Your task to perform on an android device: open chrome and create a bookmark for the current page Image 0: 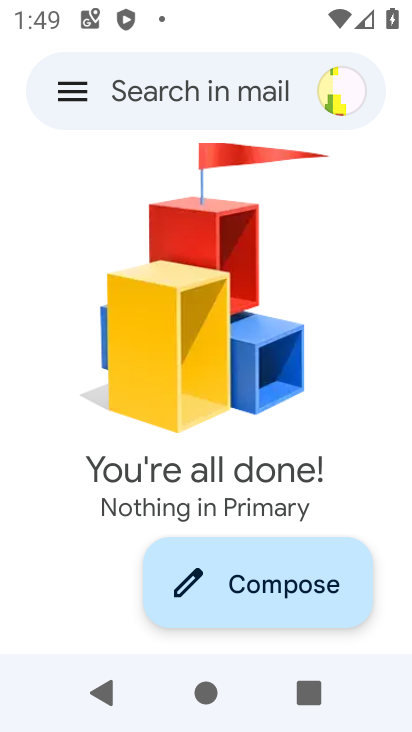
Step 0: press home button
Your task to perform on an android device: open chrome and create a bookmark for the current page Image 1: 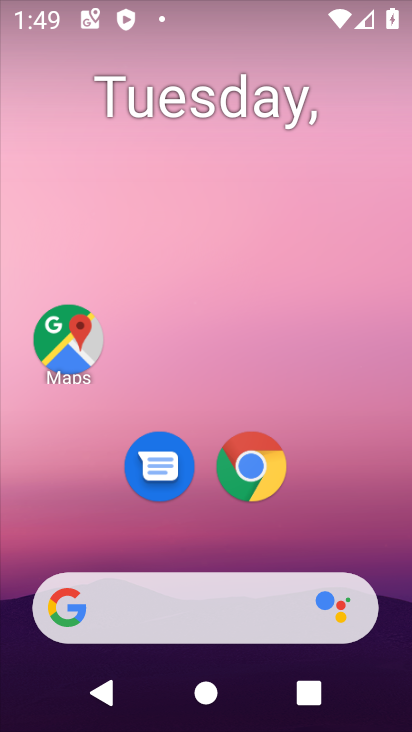
Step 1: click (241, 459)
Your task to perform on an android device: open chrome and create a bookmark for the current page Image 2: 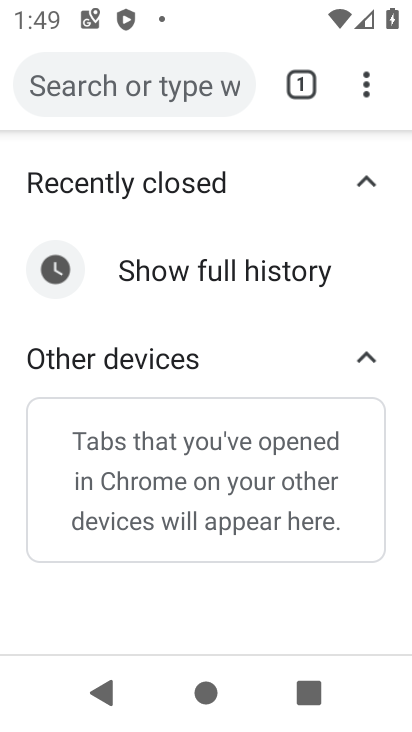
Step 2: click (143, 70)
Your task to perform on an android device: open chrome and create a bookmark for the current page Image 3: 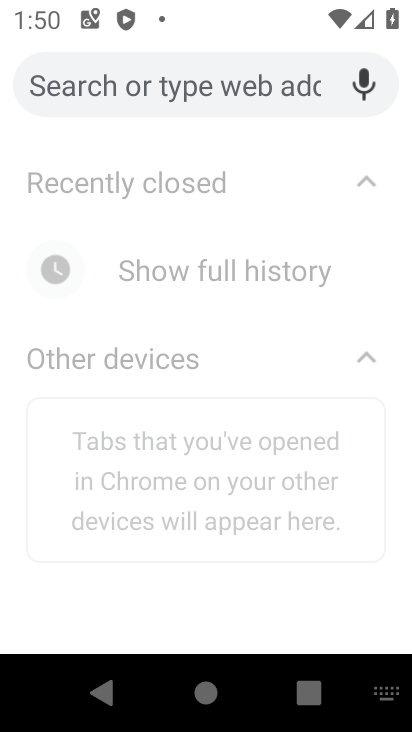
Step 3: type "youtube"
Your task to perform on an android device: open chrome and create a bookmark for the current page Image 4: 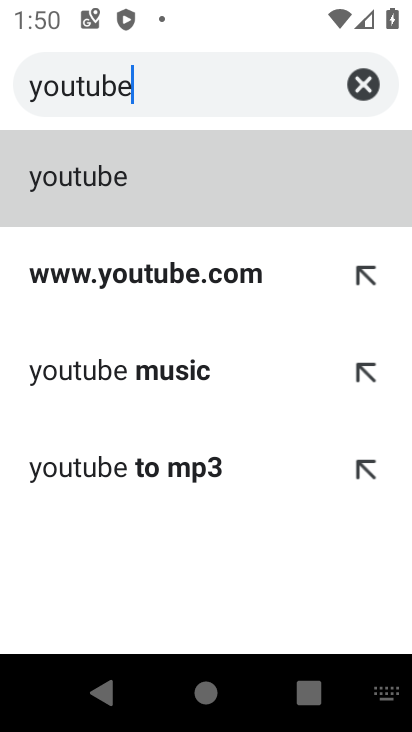
Step 4: click (209, 250)
Your task to perform on an android device: open chrome and create a bookmark for the current page Image 5: 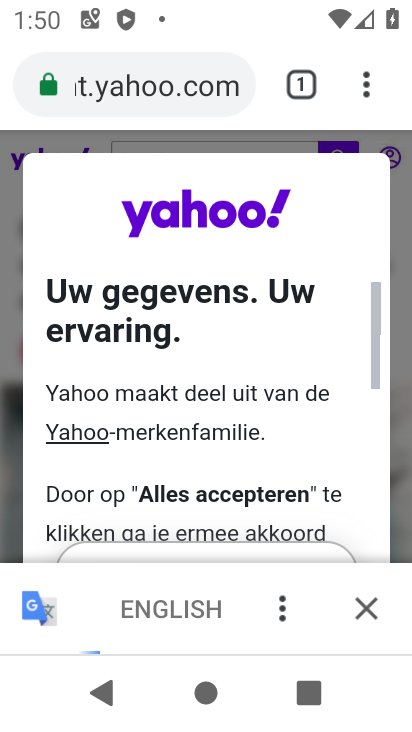
Step 5: click (377, 85)
Your task to perform on an android device: open chrome and create a bookmark for the current page Image 6: 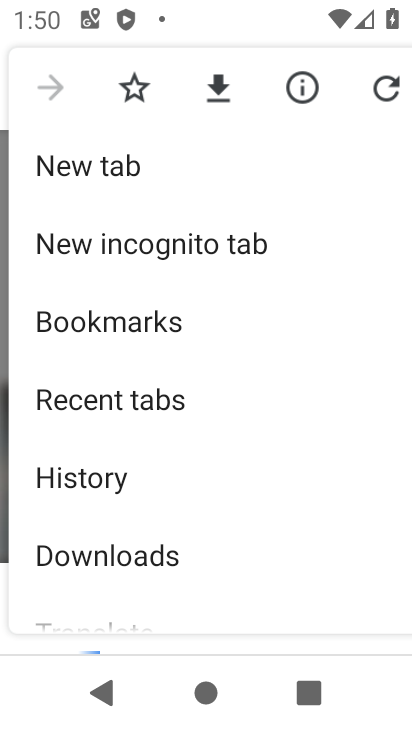
Step 6: click (150, 97)
Your task to perform on an android device: open chrome and create a bookmark for the current page Image 7: 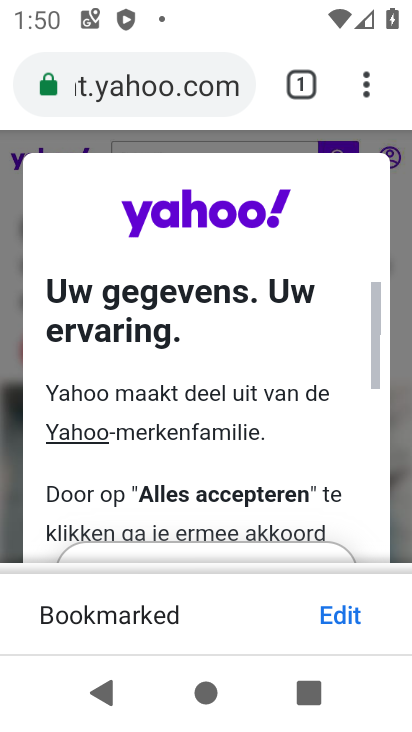
Step 7: task complete